Your task to perform on an android device: Search for Italian restaurants on Maps Image 0: 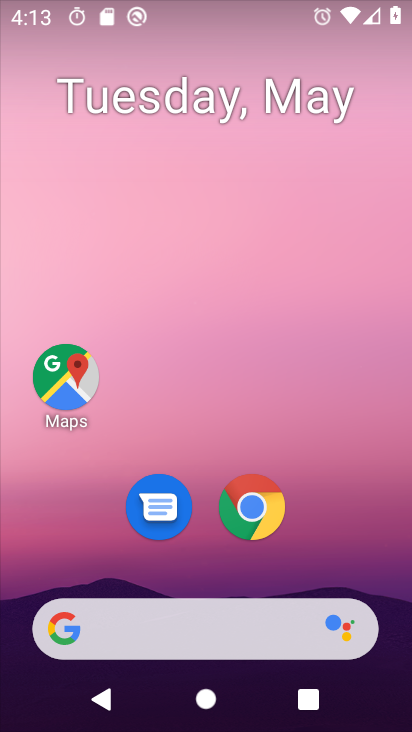
Step 0: click (72, 385)
Your task to perform on an android device: Search for Italian restaurants on Maps Image 1: 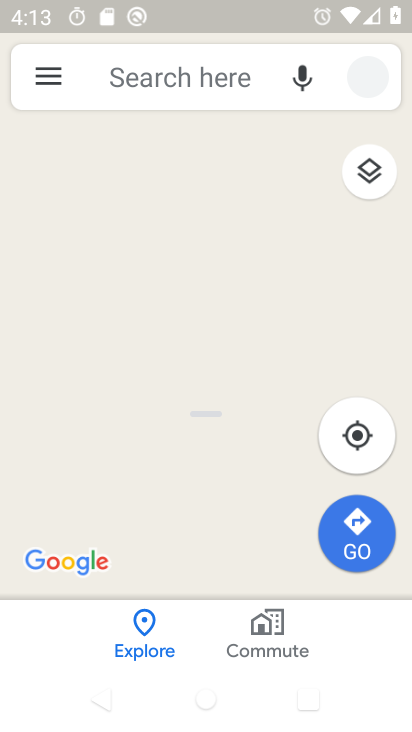
Step 1: click (227, 78)
Your task to perform on an android device: Search for Italian restaurants on Maps Image 2: 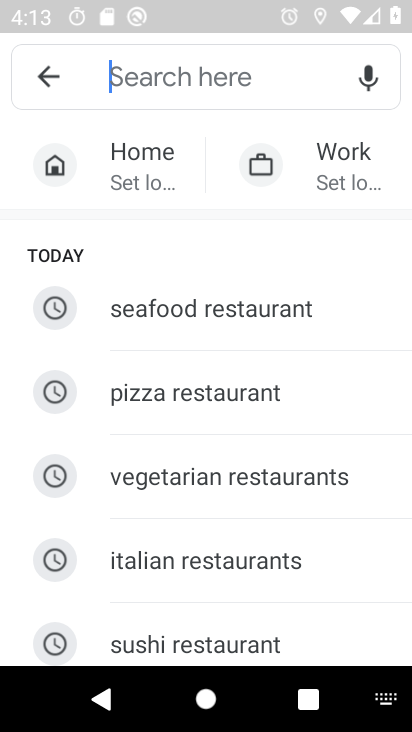
Step 2: type "italian restaurants"
Your task to perform on an android device: Search for Italian restaurants on Maps Image 3: 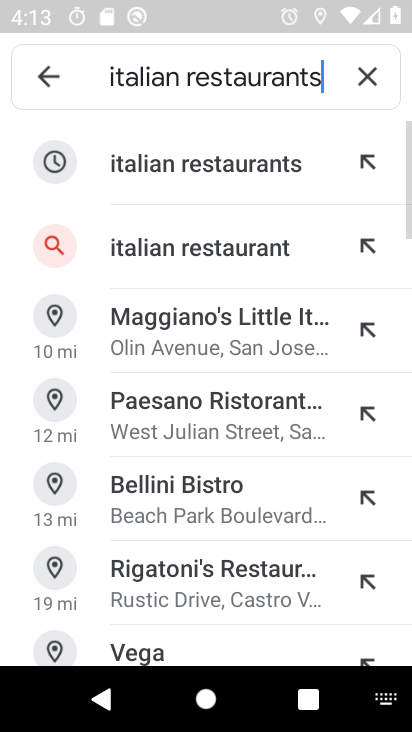
Step 3: click (139, 181)
Your task to perform on an android device: Search for Italian restaurants on Maps Image 4: 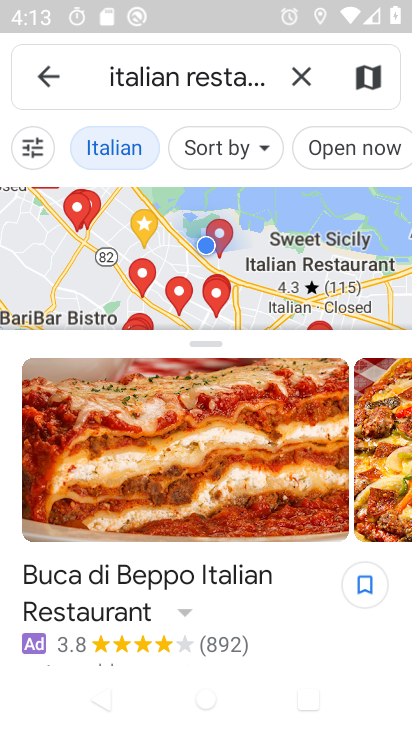
Step 4: task complete